Your task to perform on an android device: turn off notifications in google photos Image 0: 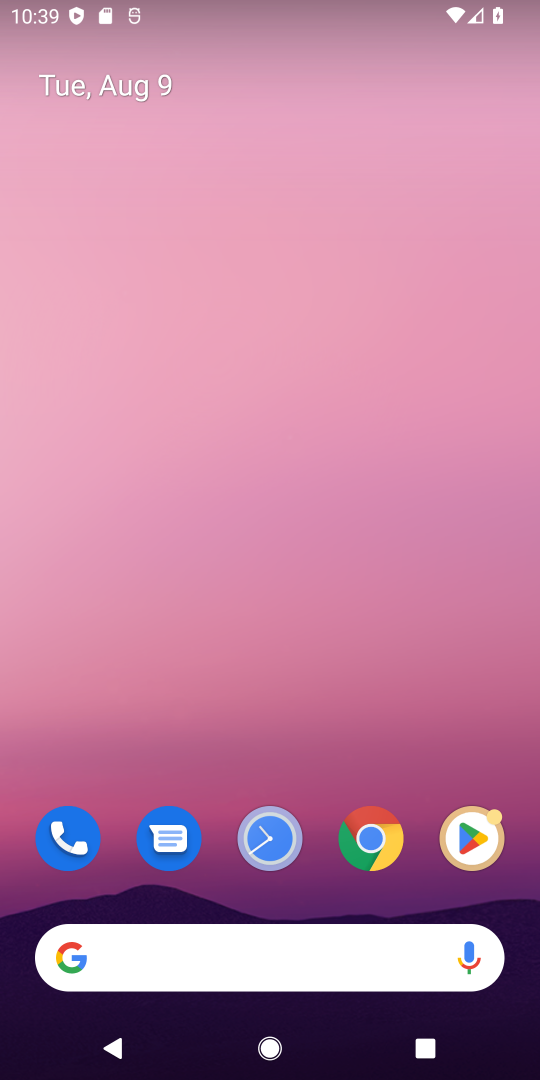
Step 0: press home button
Your task to perform on an android device: turn off notifications in google photos Image 1: 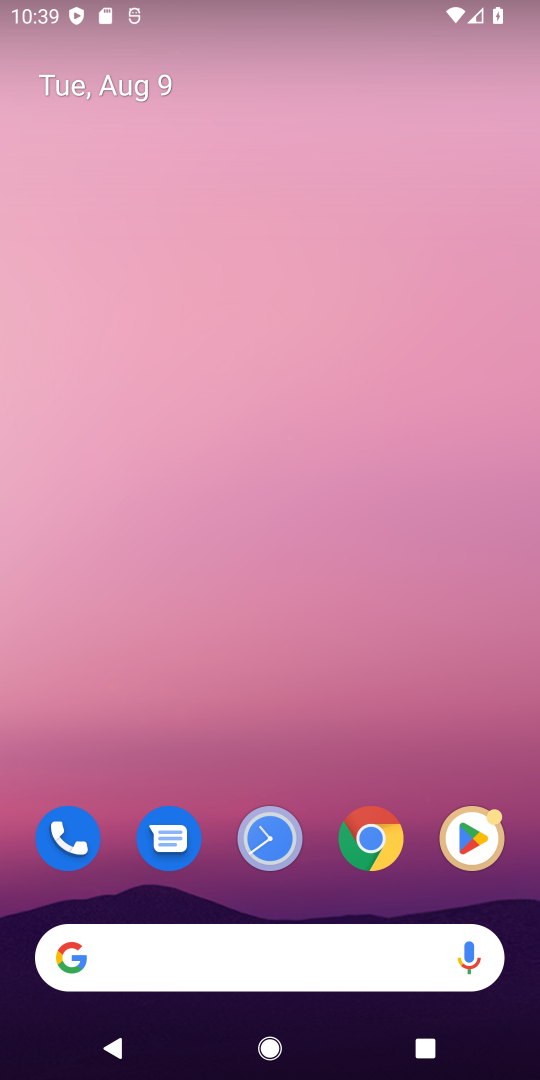
Step 1: drag from (385, 655) to (233, 16)
Your task to perform on an android device: turn off notifications in google photos Image 2: 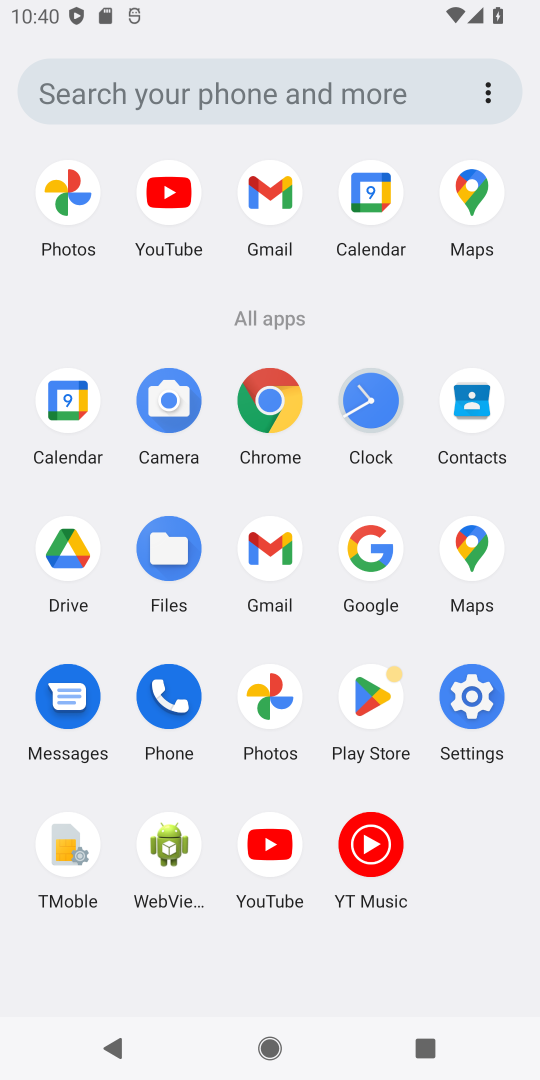
Step 2: click (245, 714)
Your task to perform on an android device: turn off notifications in google photos Image 3: 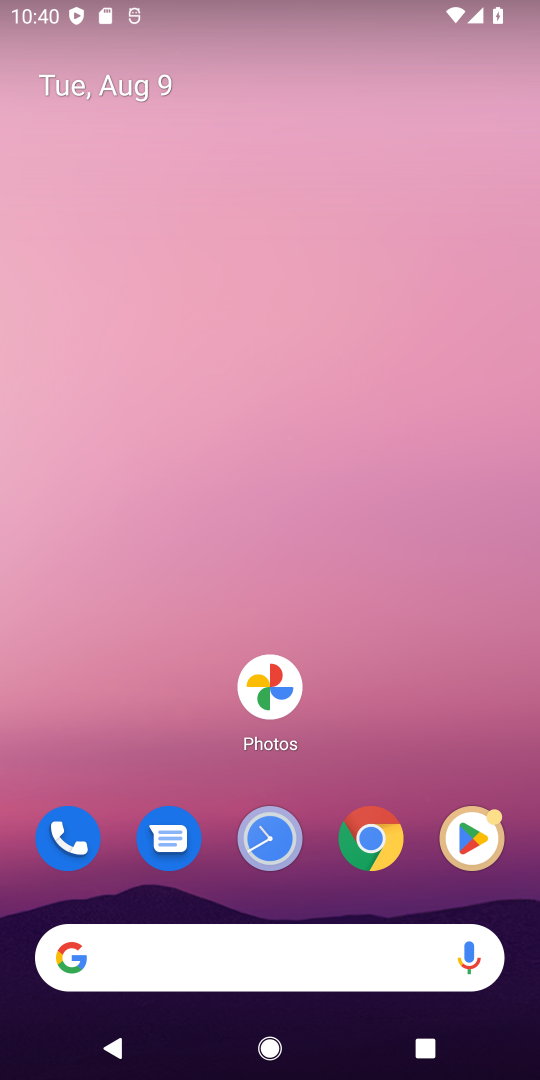
Step 3: click (264, 683)
Your task to perform on an android device: turn off notifications in google photos Image 4: 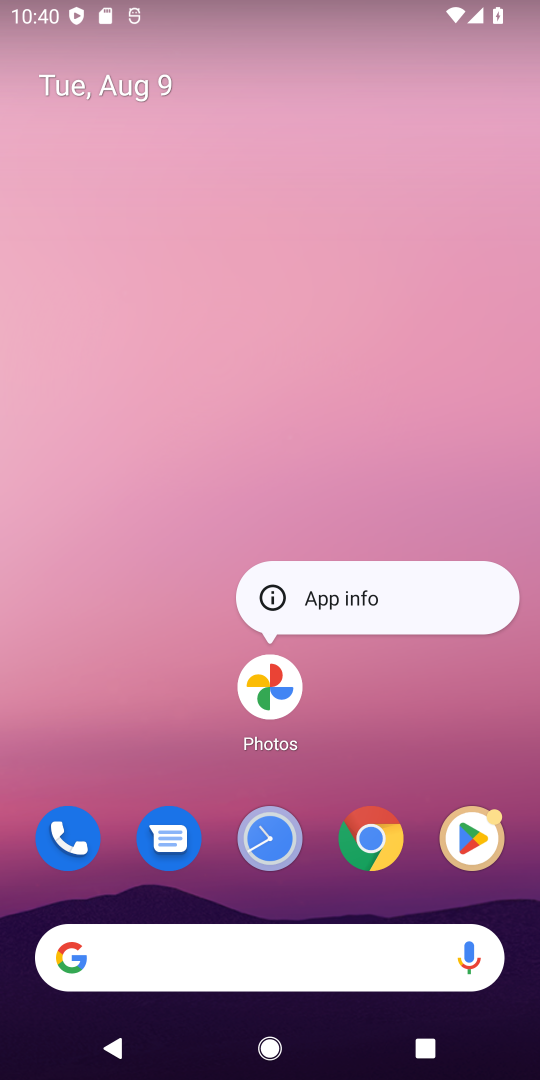
Step 4: click (324, 593)
Your task to perform on an android device: turn off notifications in google photos Image 5: 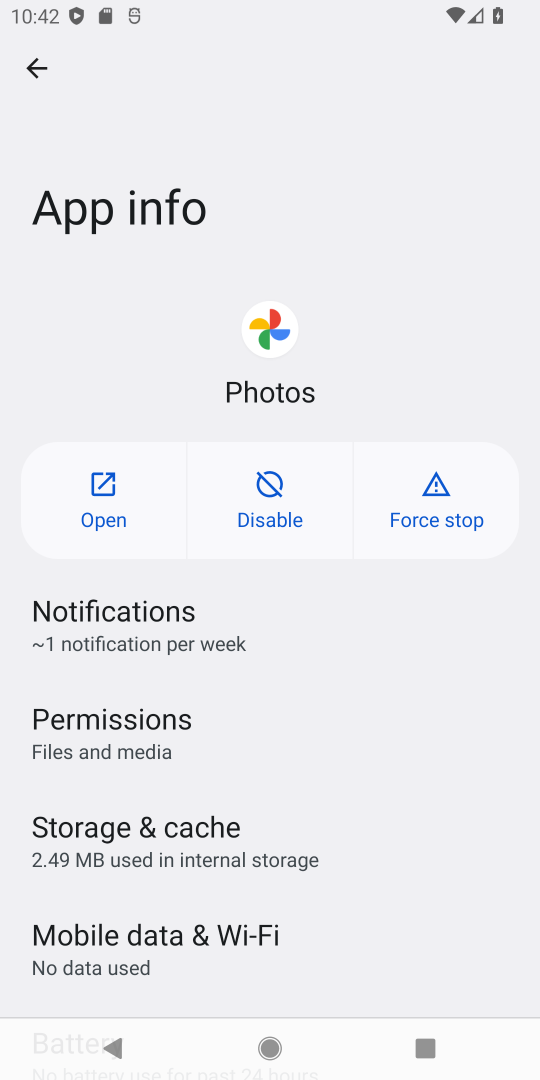
Step 5: click (200, 620)
Your task to perform on an android device: turn off notifications in google photos Image 6: 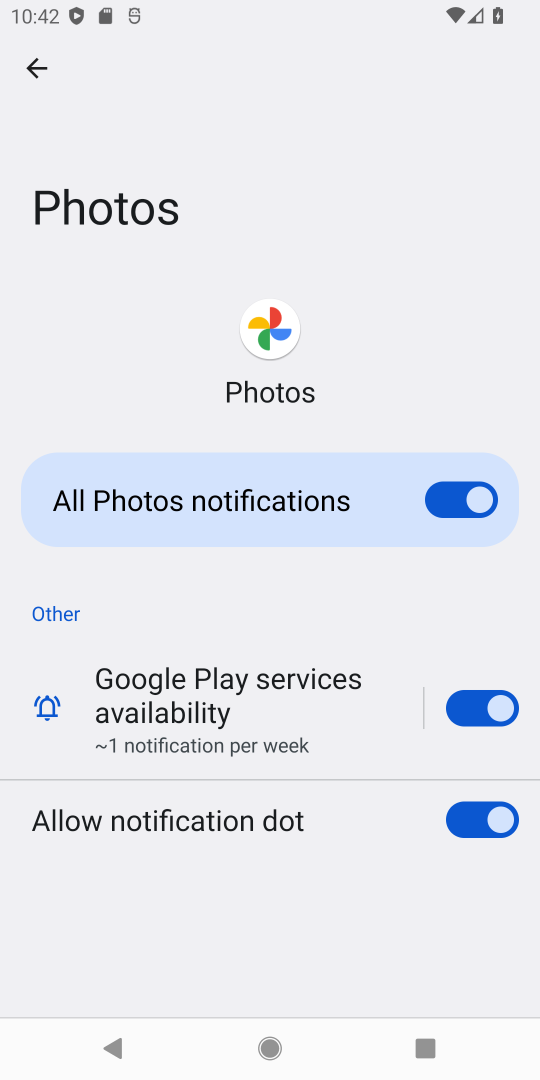
Step 6: click (316, 502)
Your task to perform on an android device: turn off notifications in google photos Image 7: 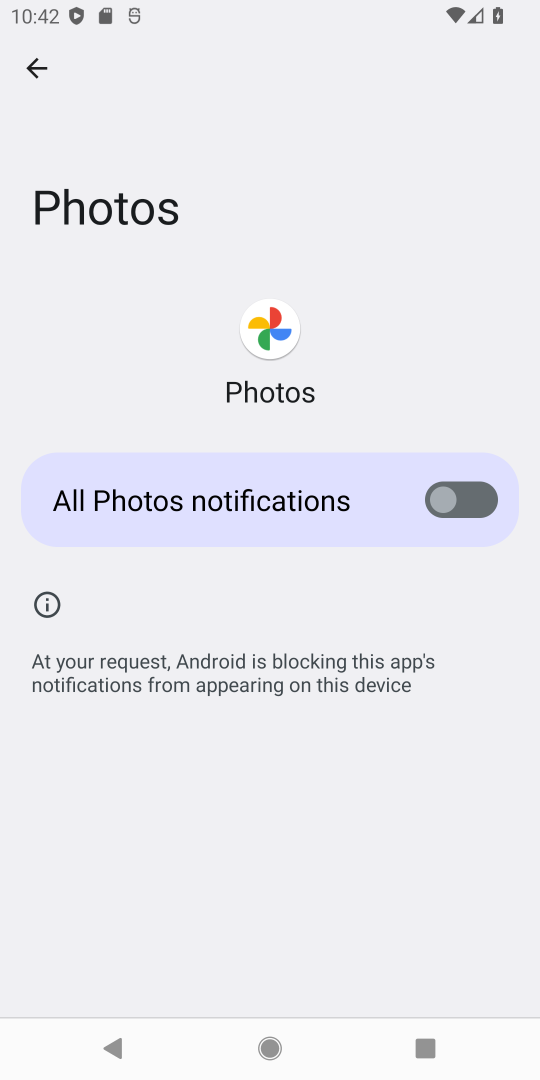
Step 7: task complete